Your task to perform on an android device: Go to wifi settings Image 0: 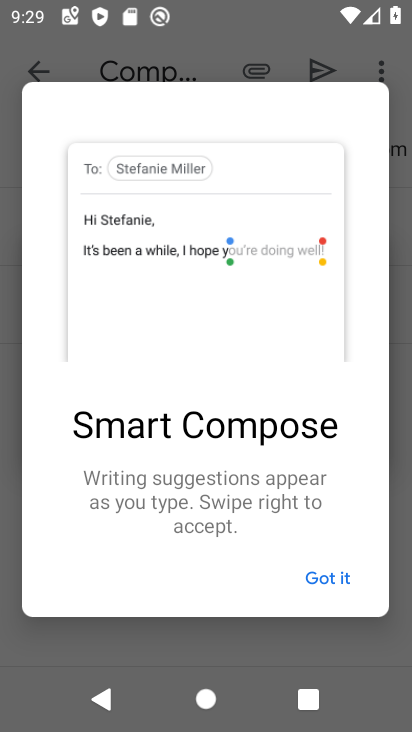
Step 0: press home button
Your task to perform on an android device: Go to wifi settings Image 1: 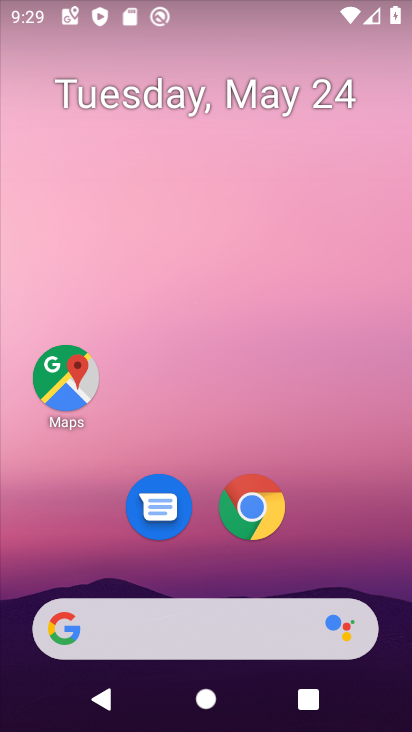
Step 1: drag from (102, 575) to (230, 97)
Your task to perform on an android device: Go to wifi settings Image 2: 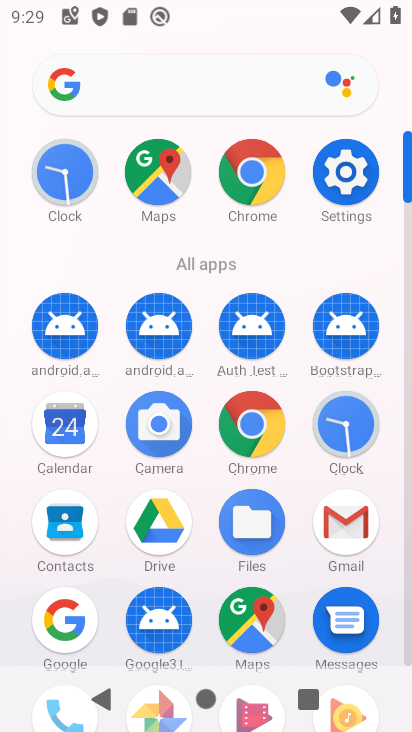
Step 2: drag from (174, 583) to (242, 269)
Your task to perform on an android device: Go to wifi settings Image 3: 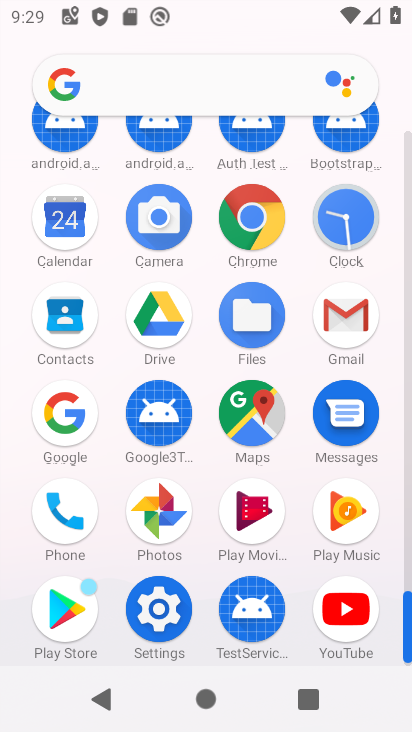
Step 3: click (170, 623)
Your task to perform on an android device: Go to wifi settings Image 4: 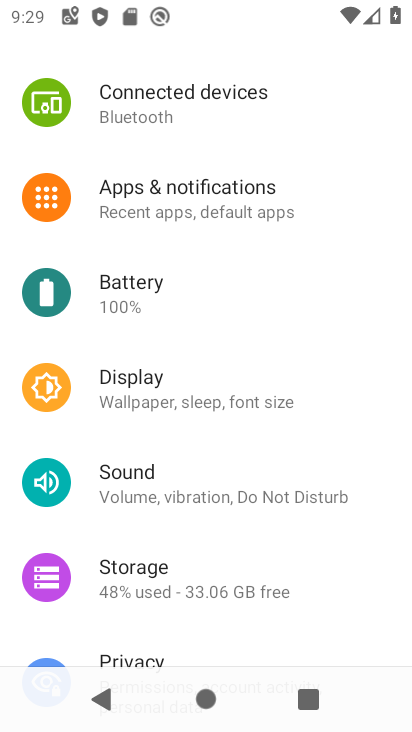
Step 4: drag from (294, 143) to (190, 507)
Your task to perform on an android device: Go to wifi settings Image 5: 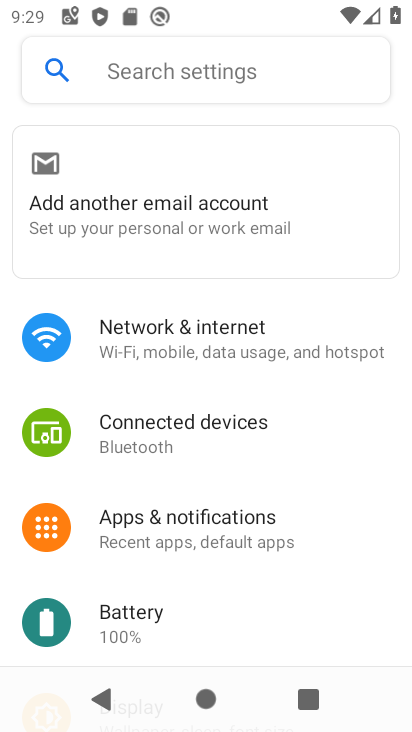
Step 5: click (200, 328)
Your task to perform on an android device: Go to wifi settings Image 6: 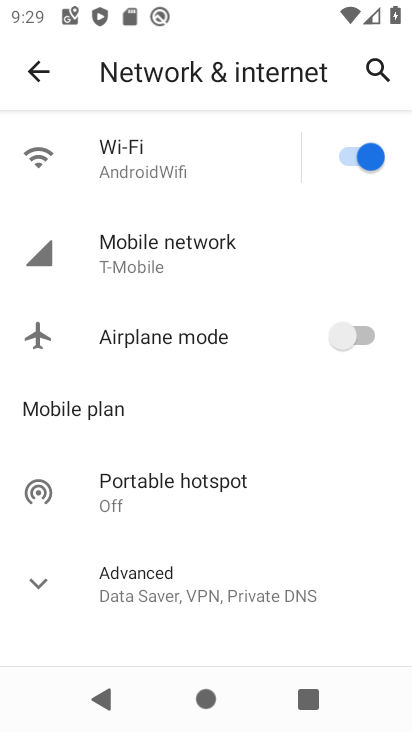
Step 6: click (163, 166)
Your task to perform on an android device: Go to wifi settings Image 7: 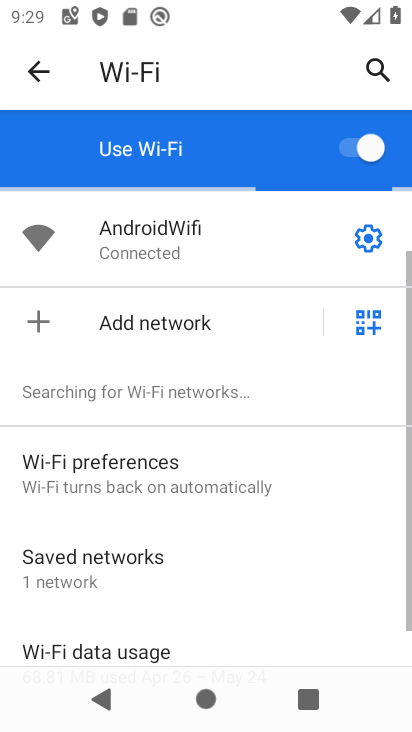
Step 7: task complete